Your task to perform on an android device: change timer sound Image 0: 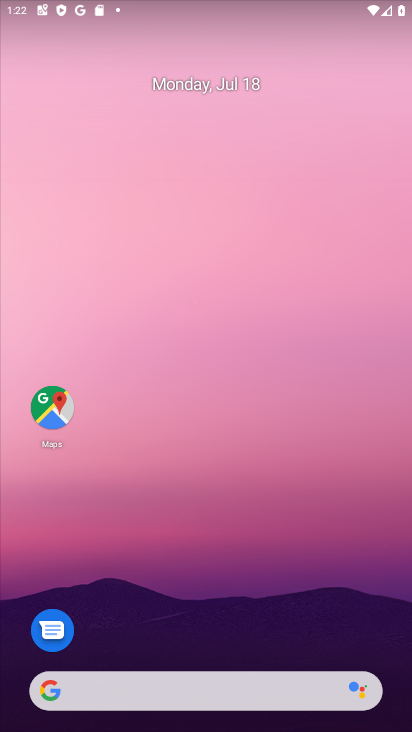
Step 0: drag from (283, 705) to (274, 29)
Your task to perform on an android device: change timer sound Image 1: 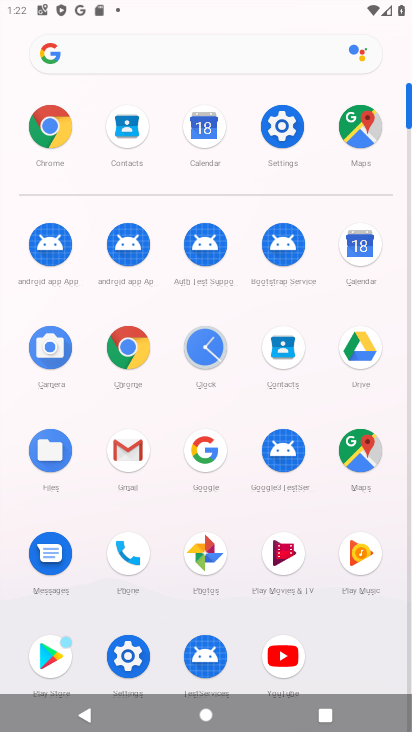
Step 1: click (204, 350)
Your task to perform on an android device: change timer sound Image 2: 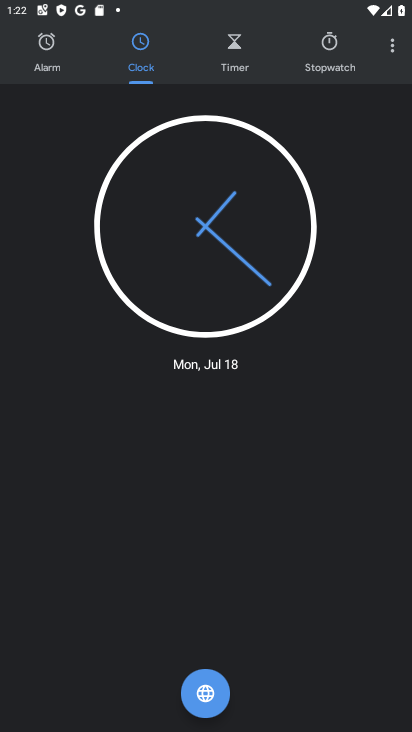
Step 2: click (228, 52)
Your task to perform on an android device: change timer sound Image 3: 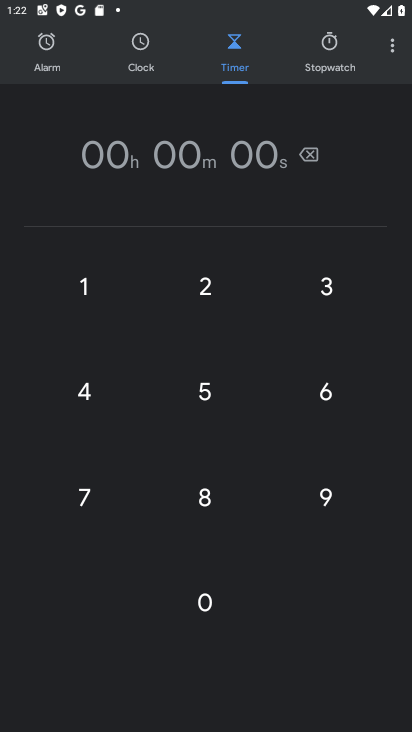
Step 3: click (321, 500)
Your task to perform on an android device: change timer sound Image 4: 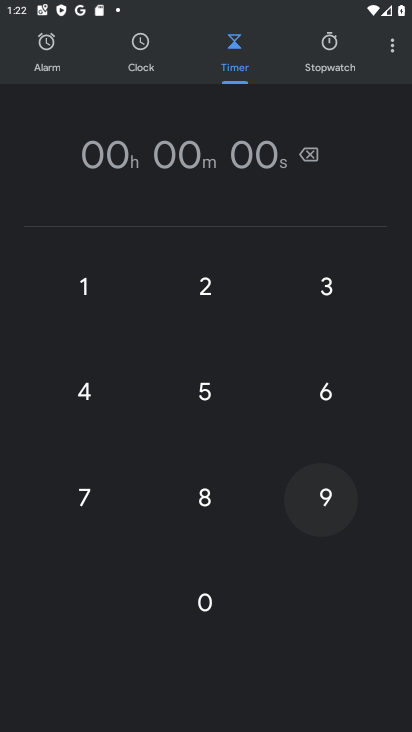
Step 4: click (320, 497)
Your task to perform on an android device: change timer sound Image 5: 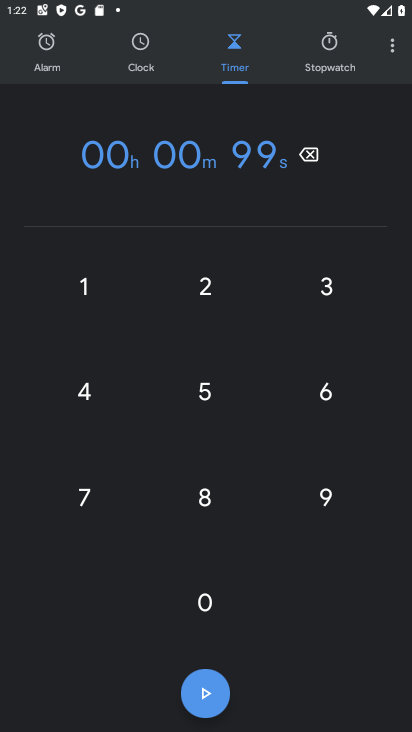
Step 5: click (320, 497)
Your task to perform on an android device: change timer sound Image 6: 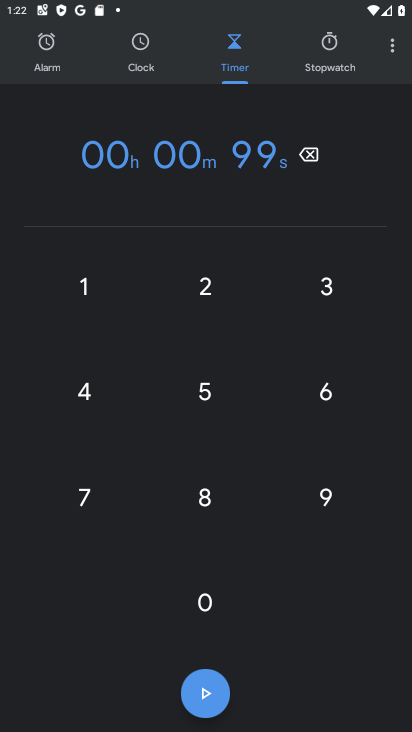
Step 6: click (320, 497)
Your task to perform on an android device: change timer sound Image 7: 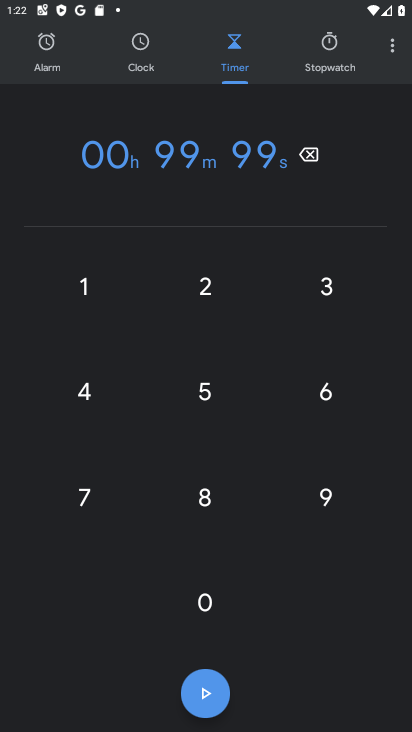
Step 7: click (320, 497)
Your task to perform on an android device: change timer sound Image 8: 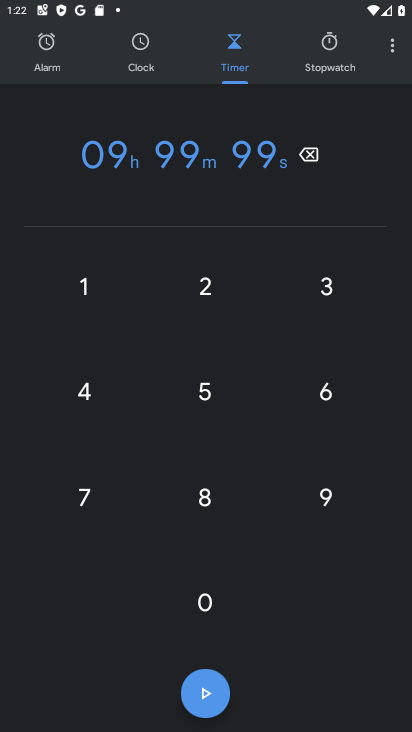
Step 8: click (320, 497)
Your task to perform on an android device: change timer sound Image 9: 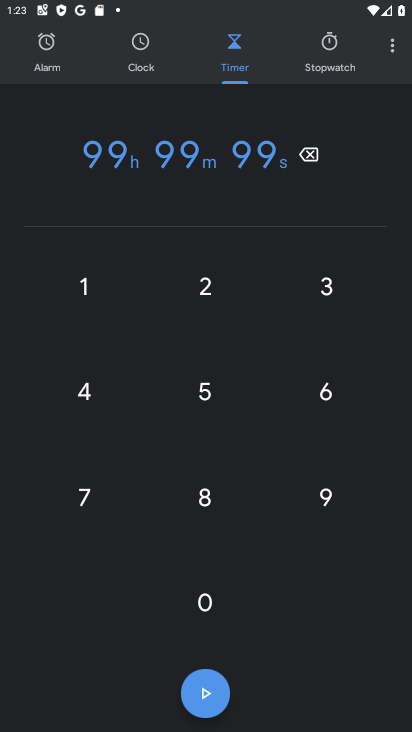
Step 9: click (202, 708)
Your task to perform on an android device: change timer sound Image 10: 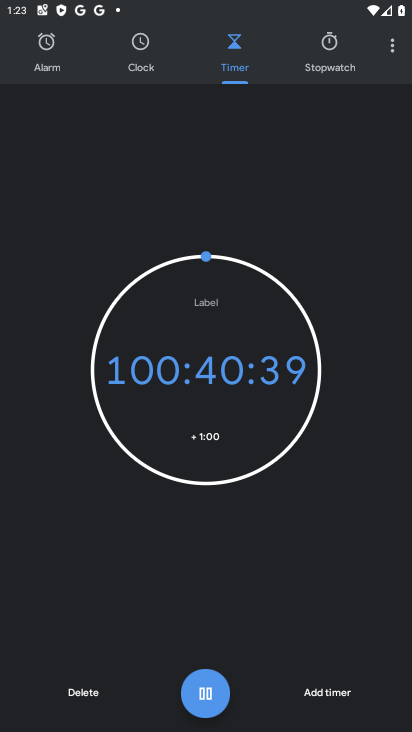
Step 10: task complete